Your task to perform on an android device: Go to ESPN.com Image 0: 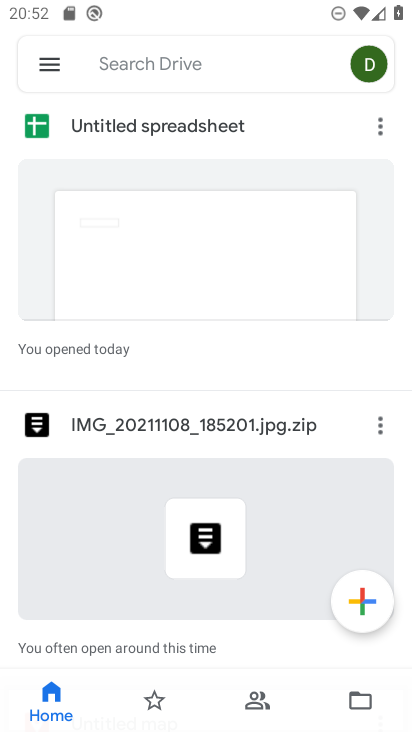
Step 0: press home button
Your task to perform on an android device: Go to ESPN.com Image 1: 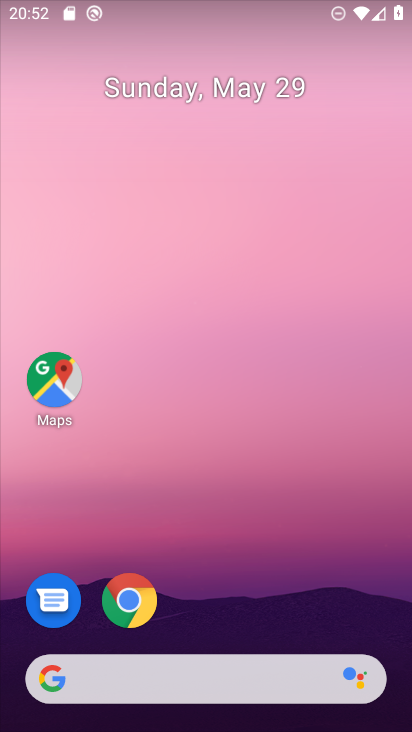
Step 1: drag from (357, 595) to (356, 131)
Your task to perform on an android device: Go to ESPN.com Image 2: 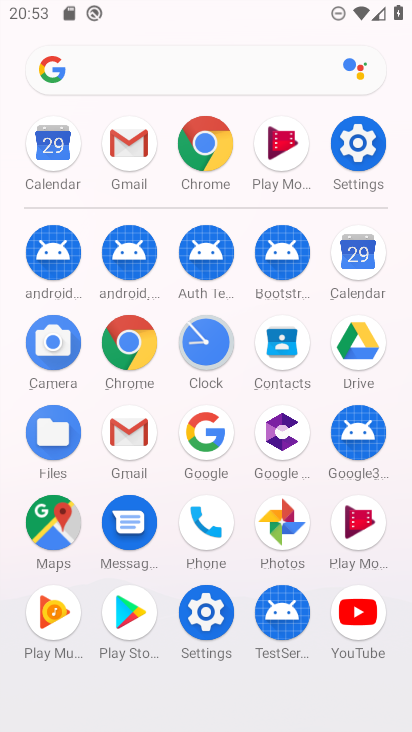
Step 2: click (207, 135)
Your task to perform on an android device: Go to ESPN.com Image 3: 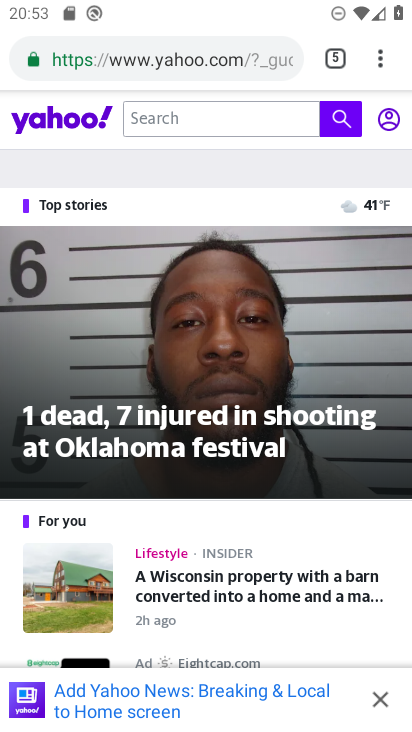
Step 3: click (196, 62)
Your task to perform on an android device: Go to ESPN.com Image 4: 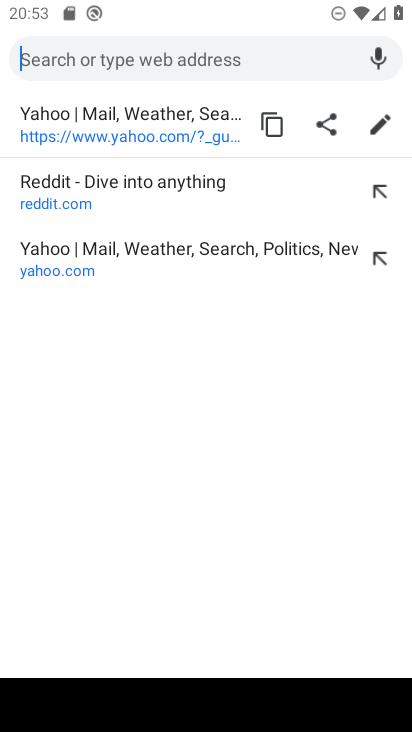
Step 4: type "espn.com"
Your task to perform on an android device: Go to ESPN.com Image 5: 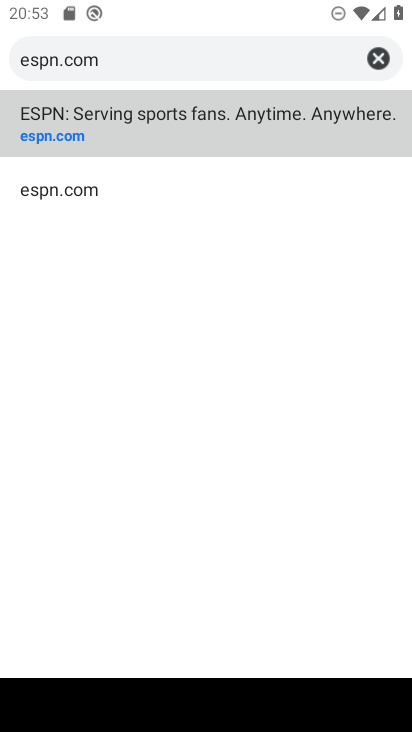
Step 5: click (57, 119)
Your task to perform on an android device: Go to ESPN.com Image 6: 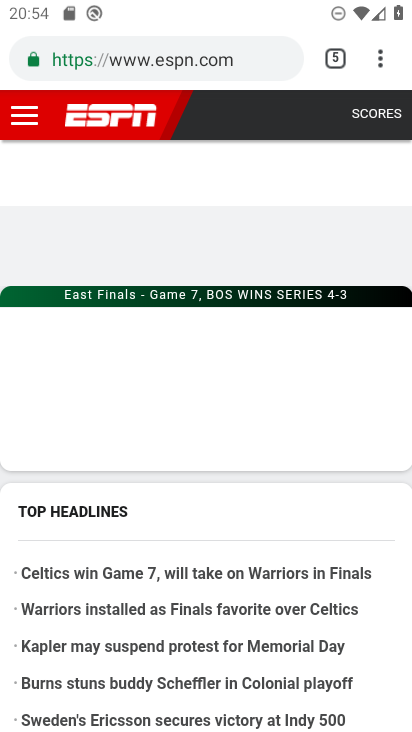
Step 6: task complete